Your task to perform on an android device: What's the weather going to be this weekend? Image 0: 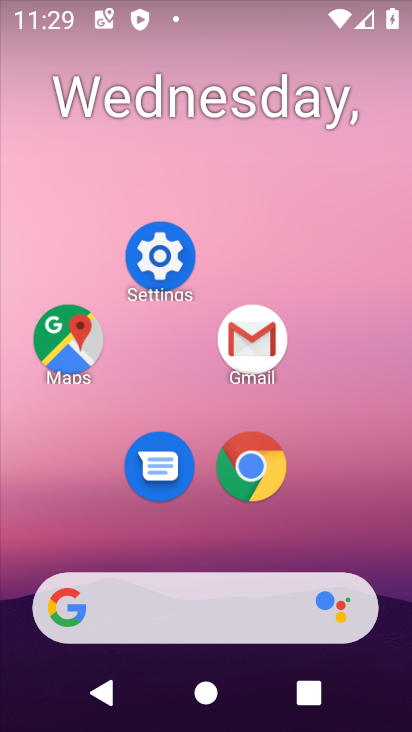
Step 0: click (341, 137)
Your task to perform on an android device: What's the weather going to be this weekend? Image 1: 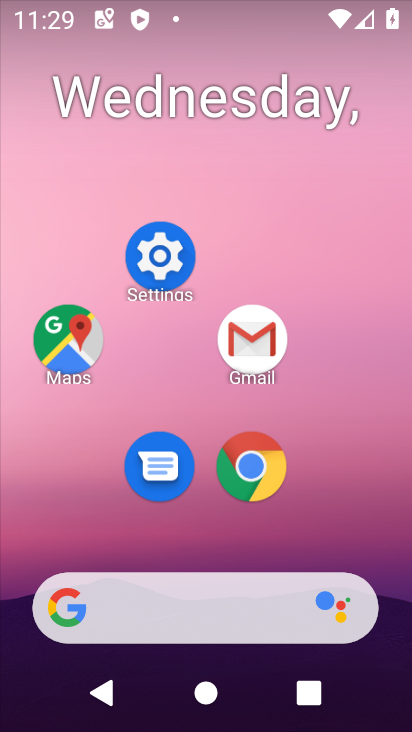
Step 1: drag from (194, 539) to (248, 235)
Your task to perform on an android device: What's the weather going to be this weekend? Image 2: 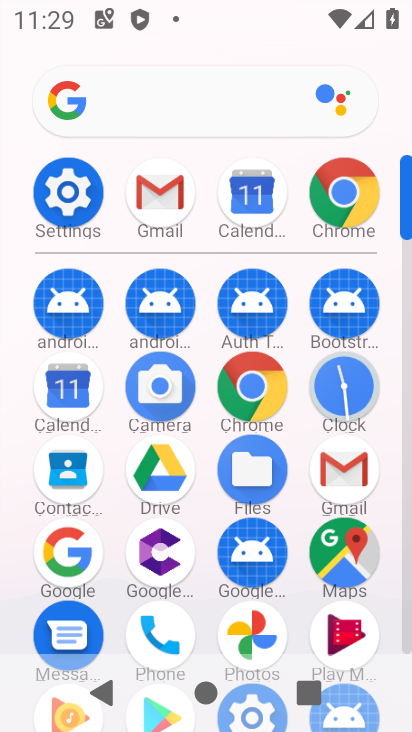
Step 2: drag from (218, 457) to (252, 266)
Your task to perform on an android device: What's the weather going to be this weekend? Image 3: 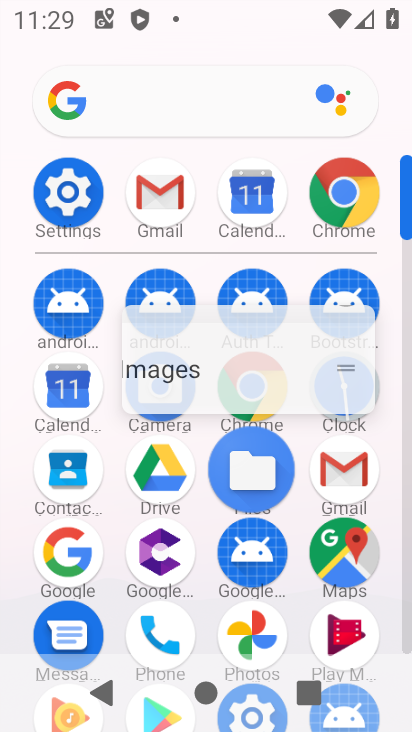
Step 3: drag from (219, 535) to (221, 14)
Your task to perform on an android device: What's the weather going to be this weekend? Image 4: 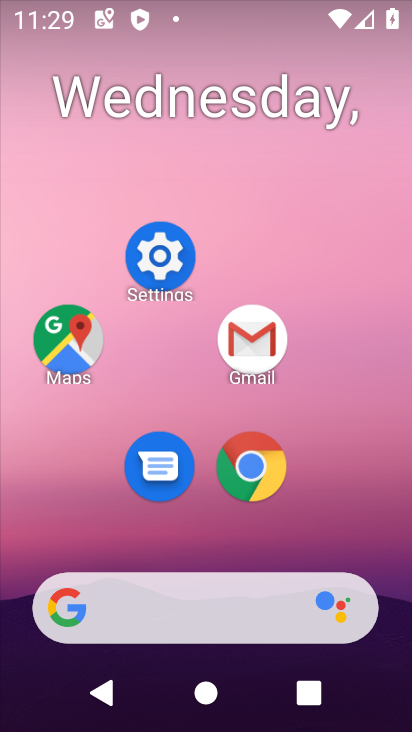
Step 4: drag from (207, 623) to (279, 160)
Your task to perform on an android device: What's the weather going to be this weekend? Image 5: 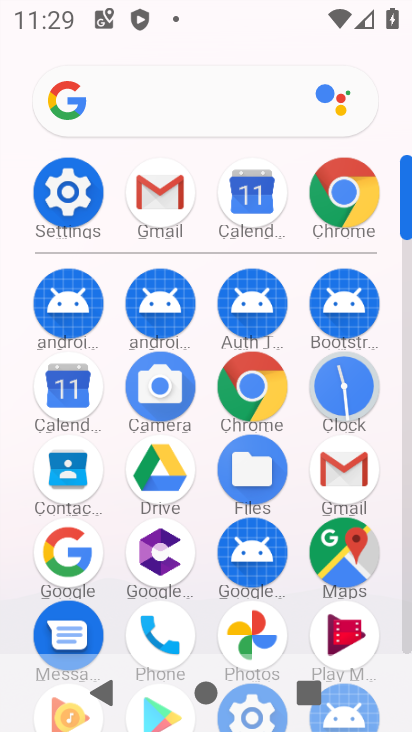
Step 5: drag from (200, 641) to (234, 229)
Your task to perform on an android device: What's the weather going to be this weekend? Image 6: 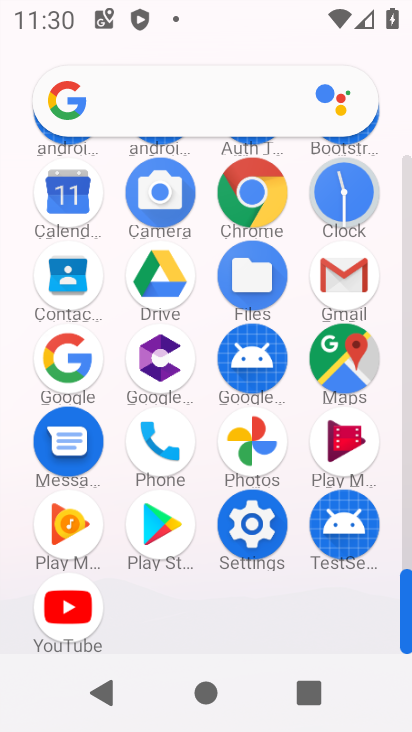
Step 6: click (222, 103)
Your task to perform on an android device: What's the weather going to be this weekend? Image 7: 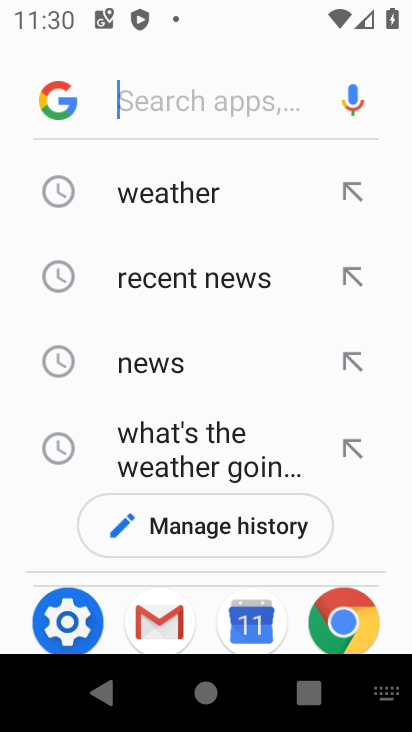
Step 7: type "weather weekend"
Your task to perform on an android device: What's the weather going to be this weekend? Image 8: 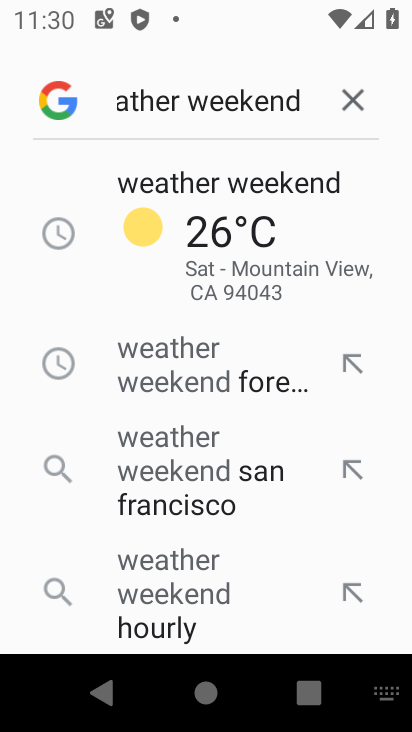
Step 8: click (198, 200)
Your task to perform on an android device: What's the weather going to be this weekend? Image 9: 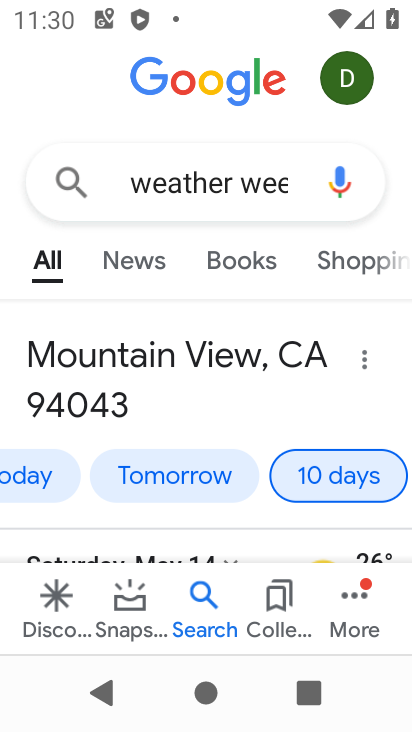
Step 9: task complete